Your task to perform on an android device: manage bookmarks in the chrome app Image 0: 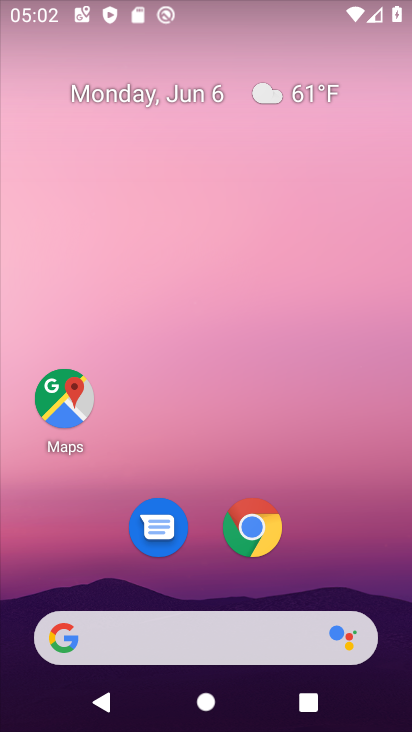
Step 0: click (248, 521)
Your task to perform on an android device: manage bookmarks in the chrome app Image 1: 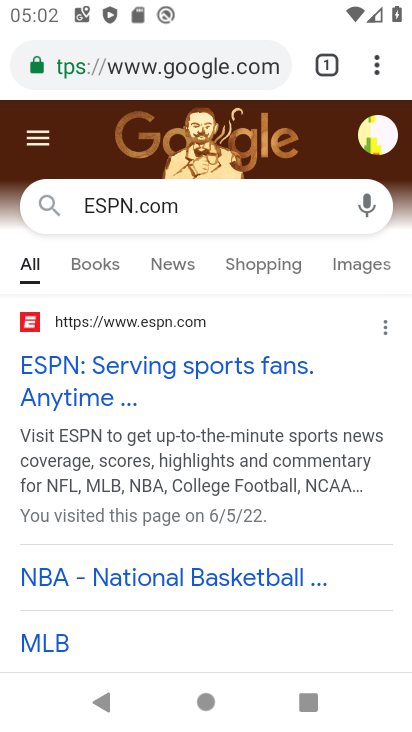
Step 1: click (373, 59)
Your task to perform on an android device: manage bookmarks in the chrome app Image 2: 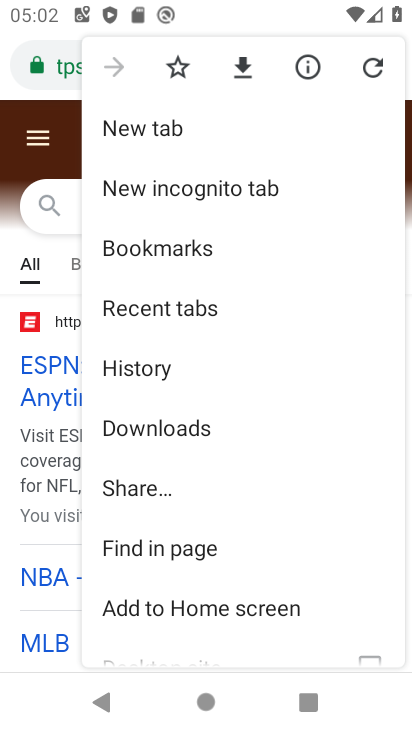
Step 2: click (165, 238)
Your task to perform on an android device: manage bookmarks in the chrome app Image 3: 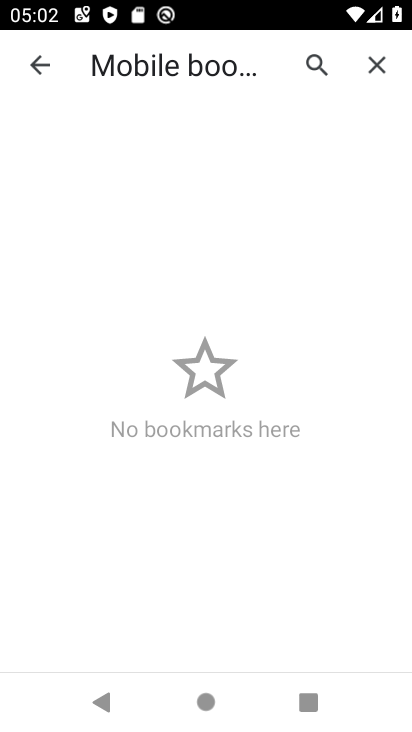
Step 3: task complete